Your task to perform on an android device: Go to privacy settings Image 0: 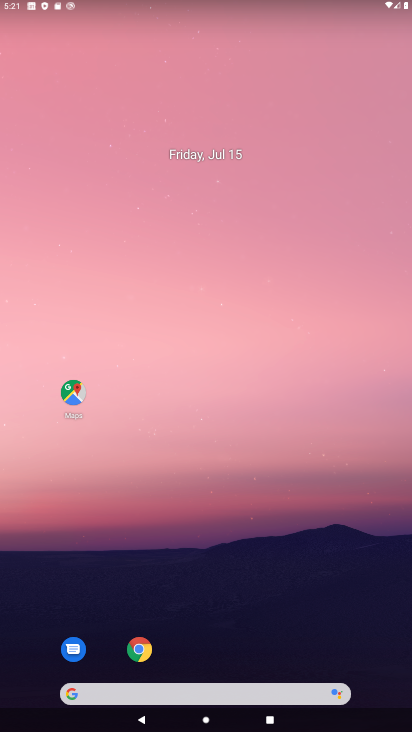
Step 0: drag from (192, 690) to (290, 72)
Your task to perform on an android device: Go to privacy settings Image 1: 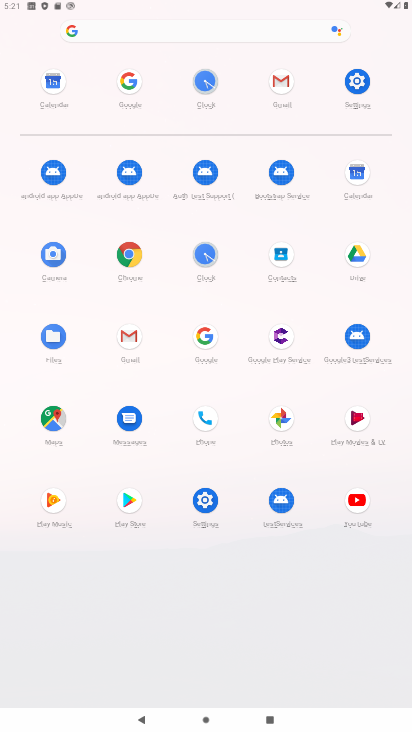
Step 1: click (358, 83)
Your task to perform on an android device: Go to privacy settings Image 2: 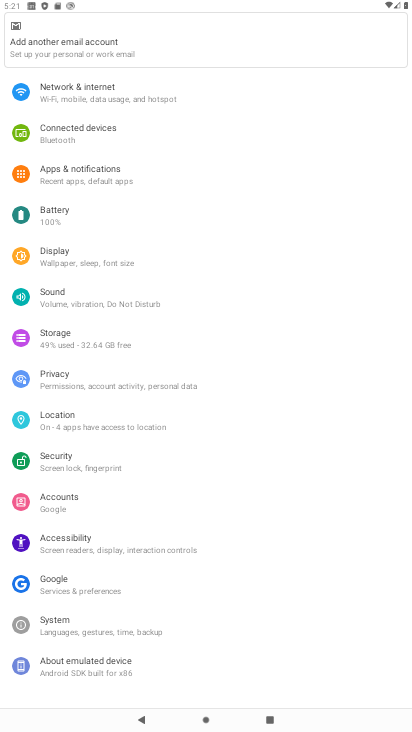
Step 2: click (60, 381)
Your task to perform on an android device: Go to privacy settings Image 3: 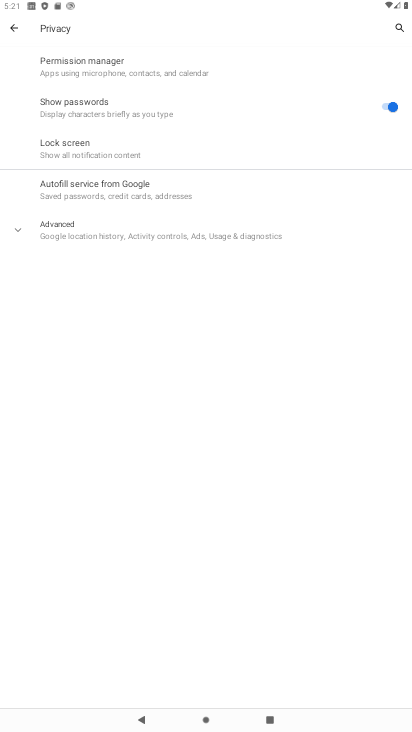
Step 3: task complete